Your task to perform on an android device: install app "Nova Launcher" Image 0: 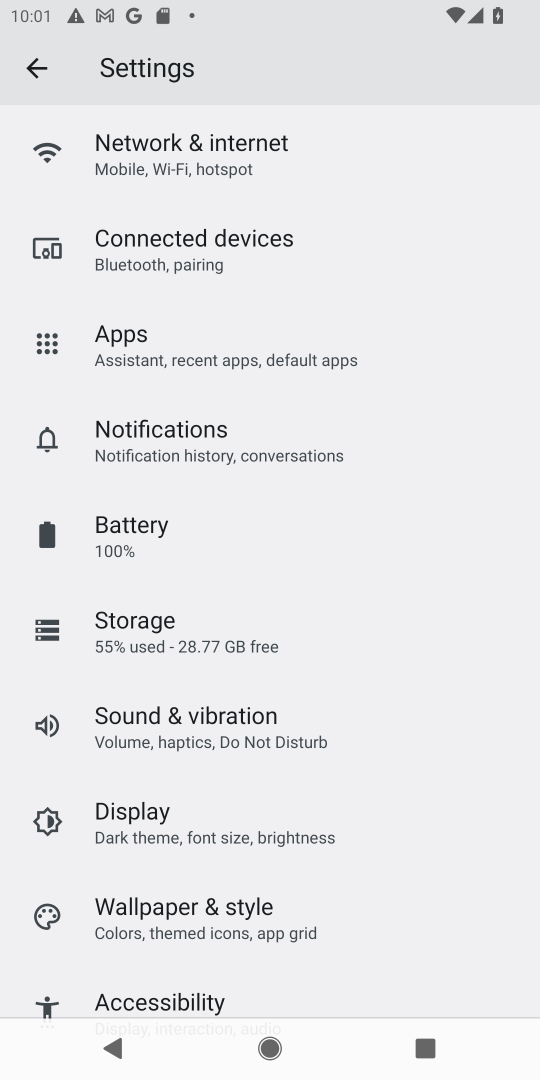
Step 0: press home button
Your task to perform on an android device: install app "Nova Launcher" Image 1: 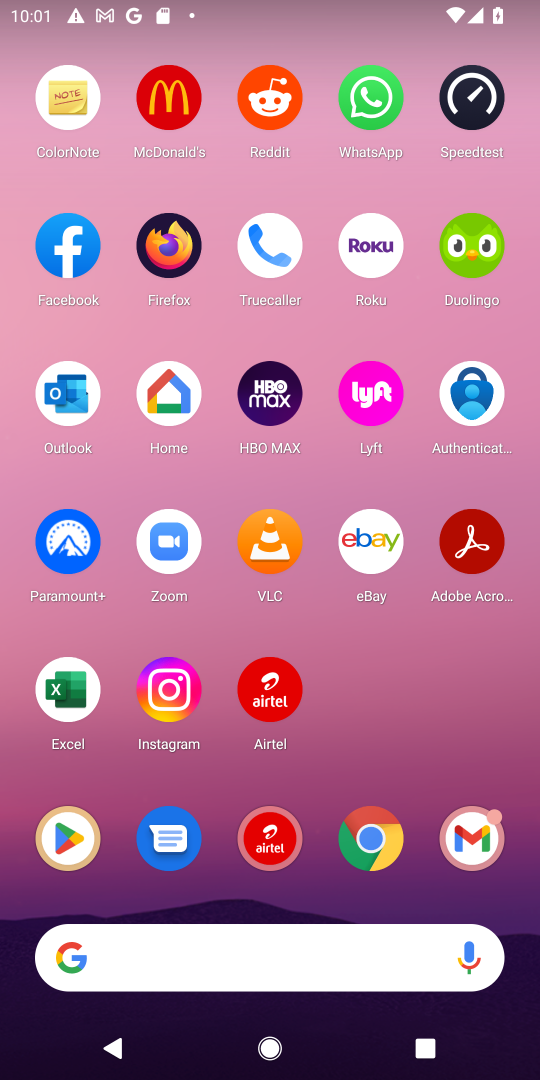
Step 1: drag from (440, 682) to (410, 39)
Your task to perform on an android device: install app "Nova Launcher" Image 2: 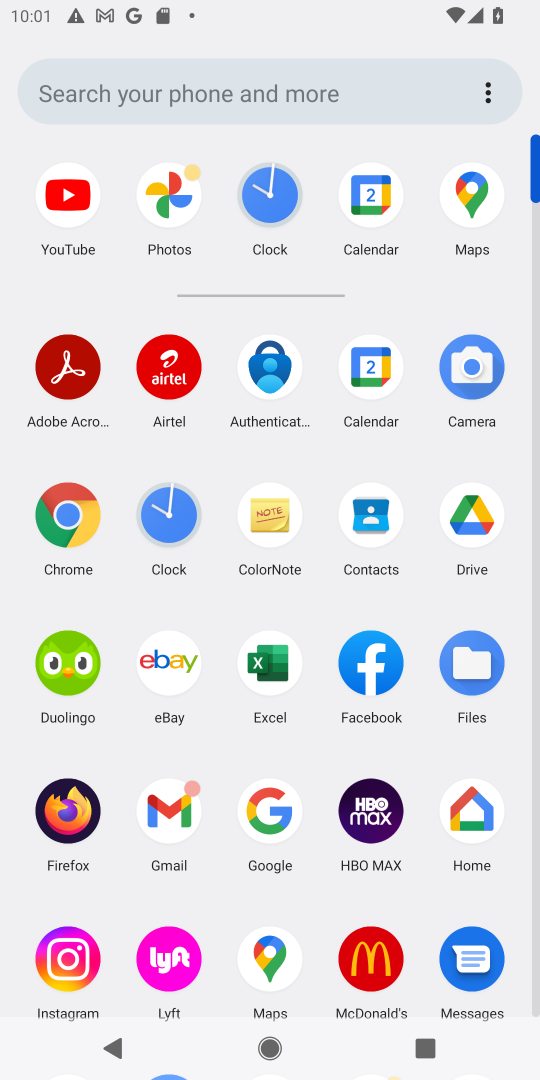
Step 2: drag from (314, 903) to (326, 375)
Your task to perform on an android device: install app "Nova Launcher" Image 3: 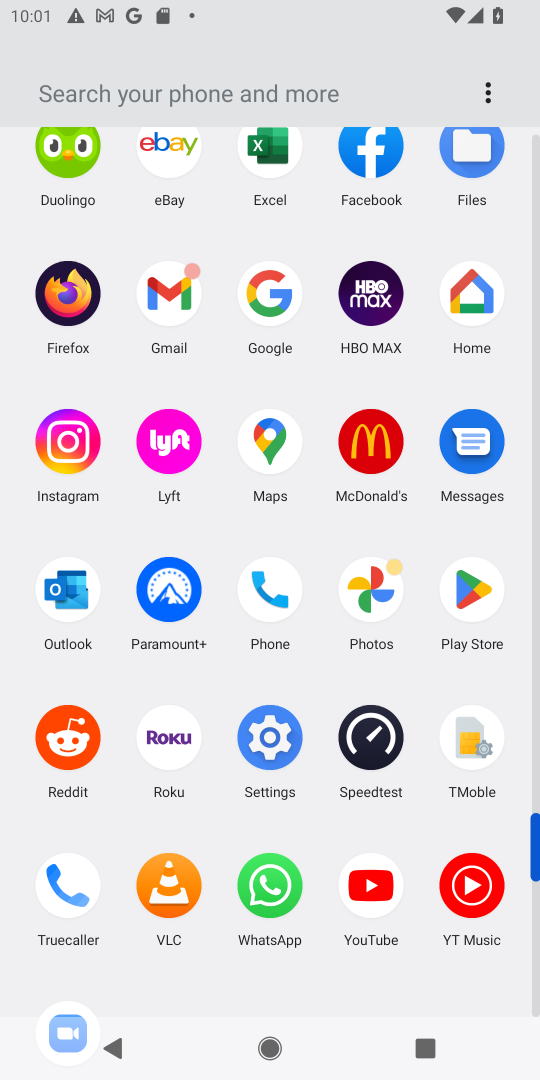
Step 3: click (480, 607)
Your task to perform on an android device: install app "Nova Launcher" Image 4: 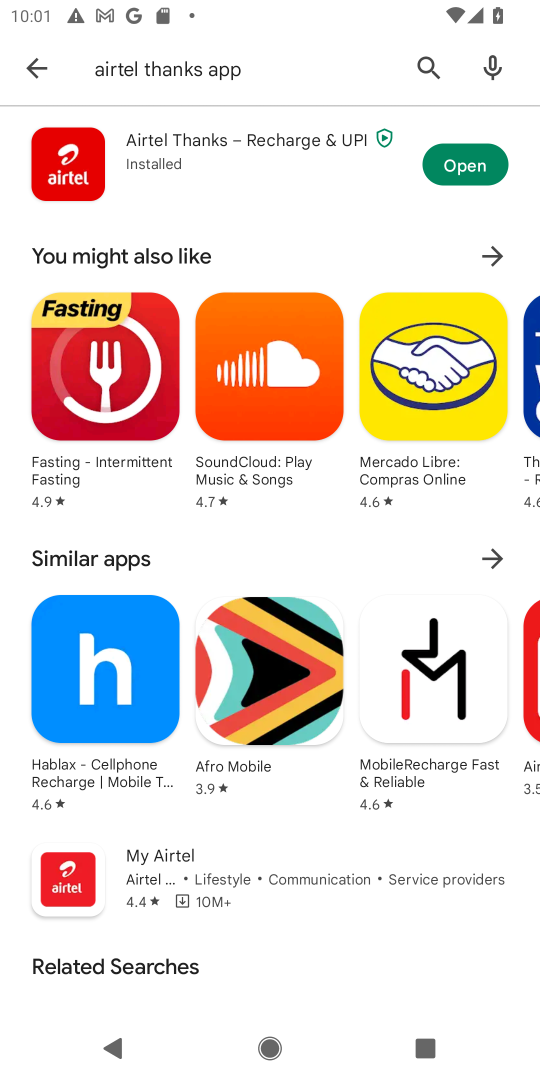
Step 4: click (424, 61)
Your task to perform on an android device: install app "Nova Launcher" Image 5: 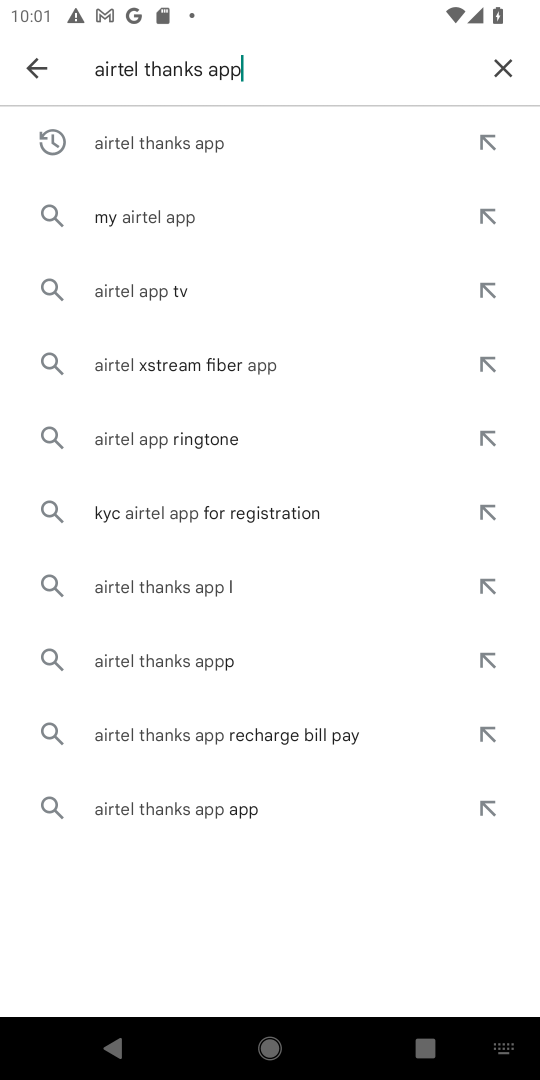
Step 5: click (528, 65)
Your task to perform on an android device: install app "Nova Launcher" Image 6: 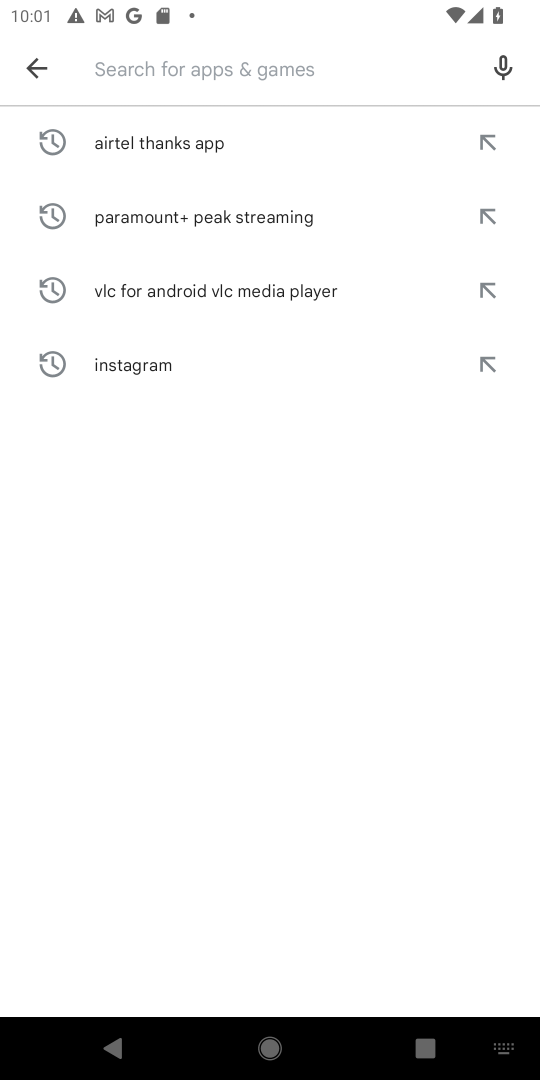
Step 6: click (381, 82)
Your task to perform on an android device: install app "Nova Launcher" Image 7: 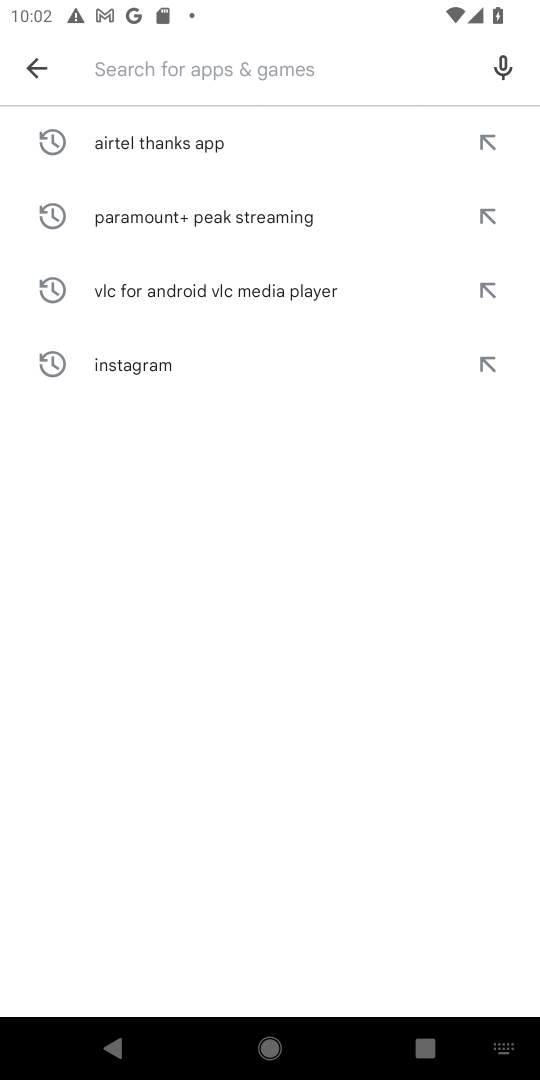
Step 7: type "nova launcher "
Your task to perform on an android device: install app "Nova Launcher" Image 8: 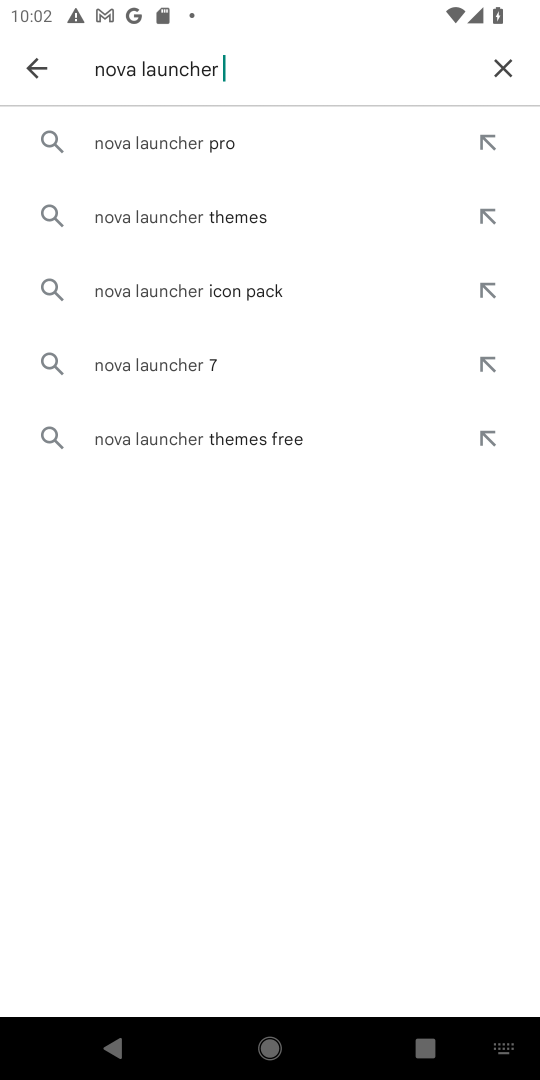
Step 8: click (248, 137)
Your task to perform on an android device: install app "Nova Launcher" Image 9: 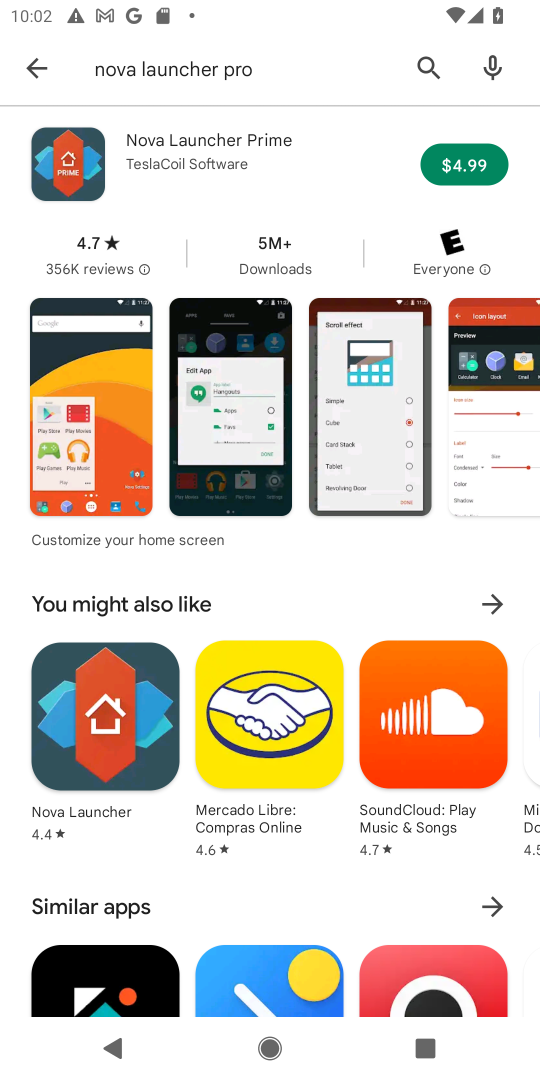
Step 9: task complete